Your task to perform on an android device: change the clock display to show seconds Image 0: 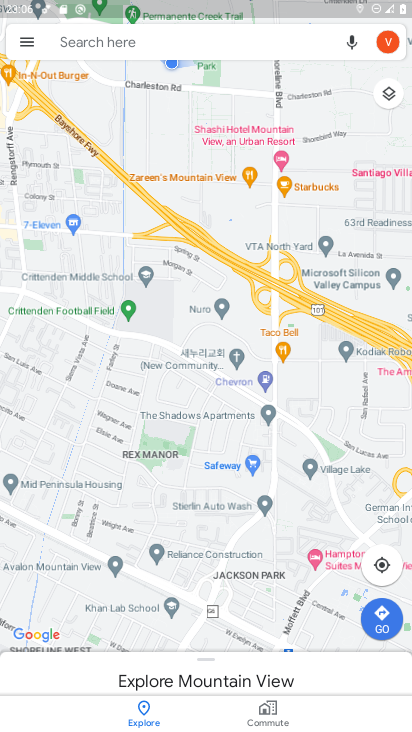
Step 0: press home button
Your task to perform on an android device: change the clock display to show seconds Image 1: 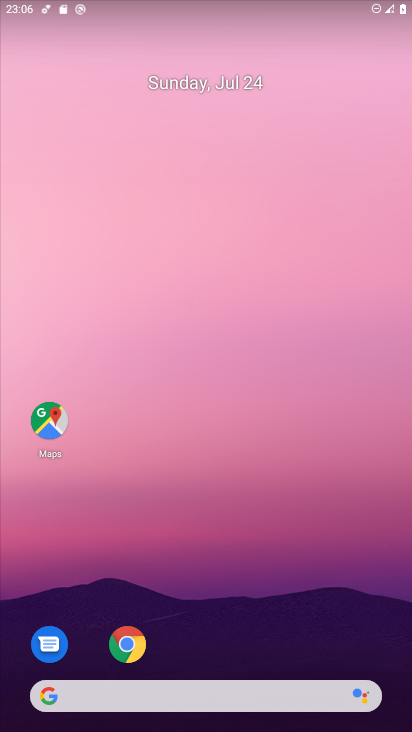
Step 1: drag from (362, 631) to (285, 32)
Your task to perform on an android device: change the clock display to show seconds Image 2: 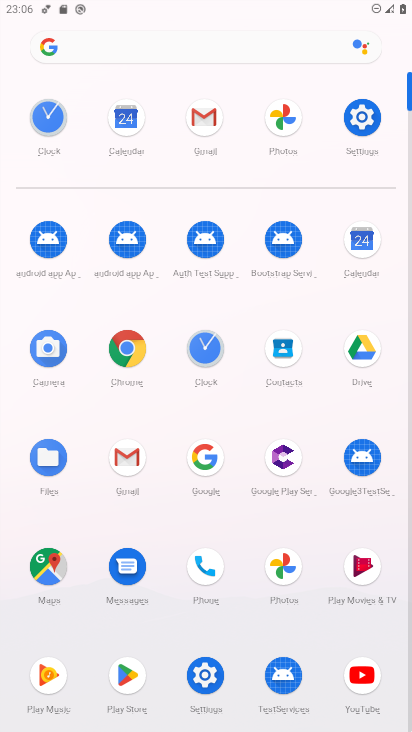
Step 2: click (206, 352)
Your task to perform on an android device: change the clock display to show seconds Image 3: 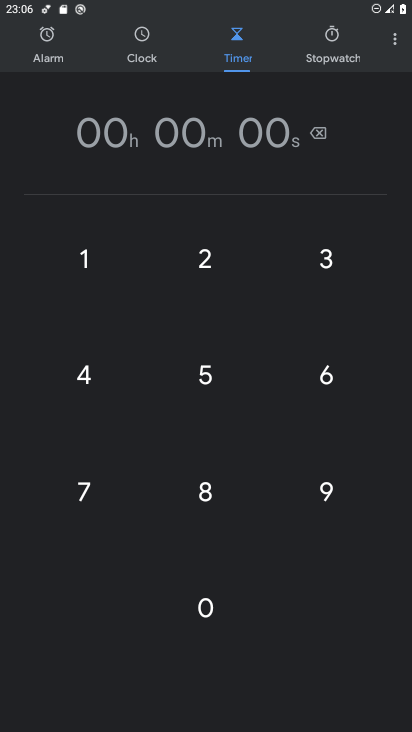
Step 3: click (396, 46)
Your task to perform on an android device: change the clock display to show seconds Image 4: 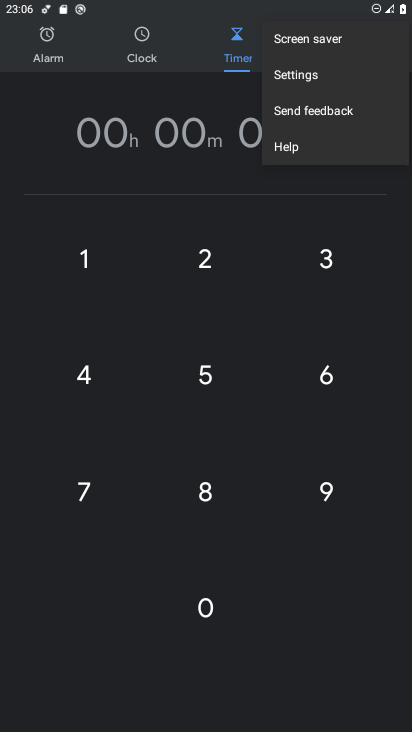
Step 4: click (294, 79)
Your task to perform on an android device: change the clock display to show seconds Image 5: 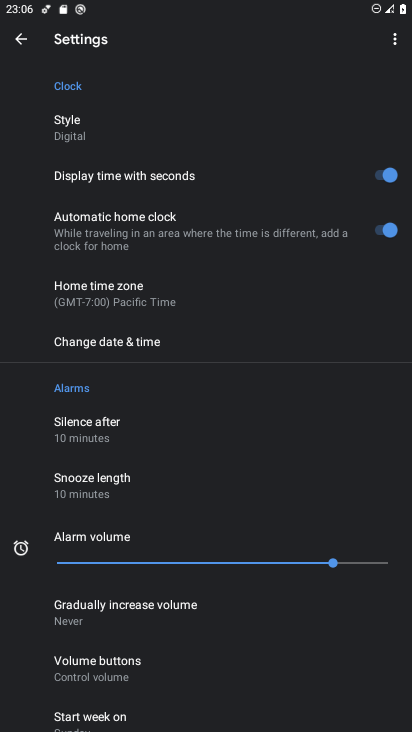
Step 5: task complete